Your task to perform on an android device: visit the assistant section in the google photos Image 0: 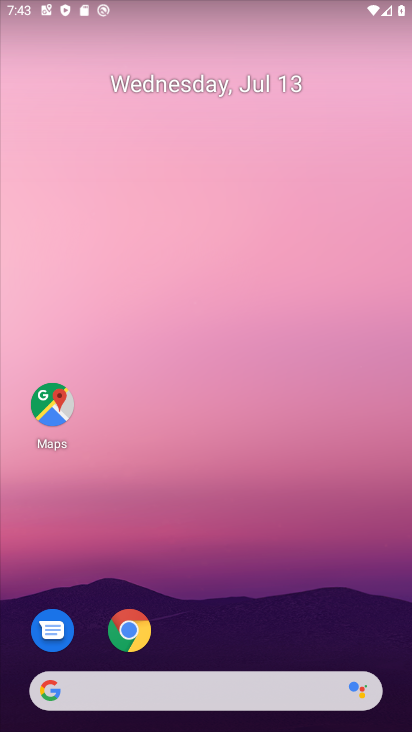
Step 0: drag from (359, 617) to (379, 104)
Your task to perform on an android device: visit the assistant section in the google photos Image 1: 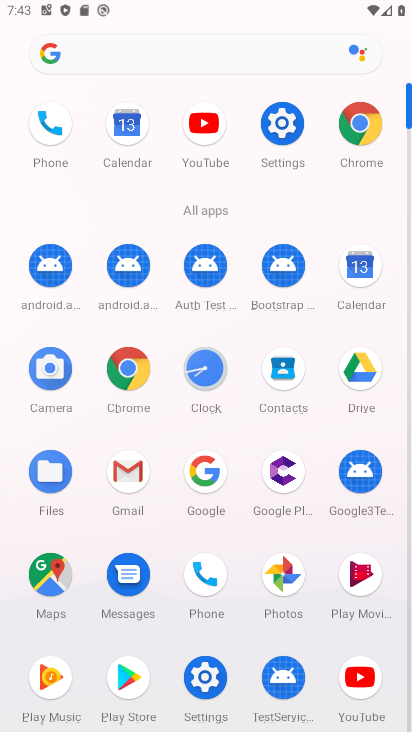
Step 1: click (282, 574)
Your task to perform on an android device: visit the assistant section in the google photos Image 2: 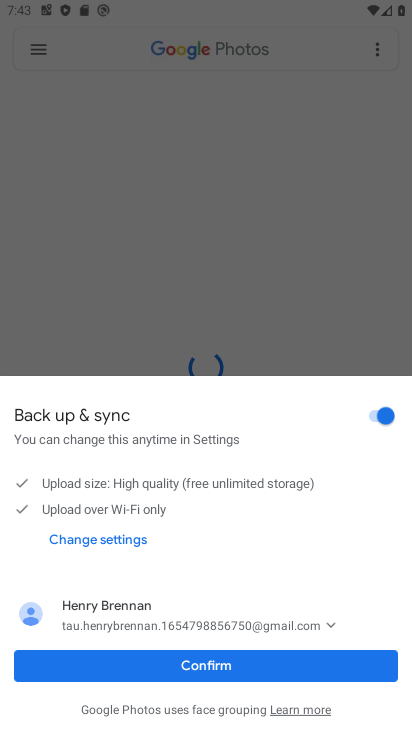
Step 2: click (216, 668)
Your task to perform on an android device: visit the assistant section in the google photos Image 3: 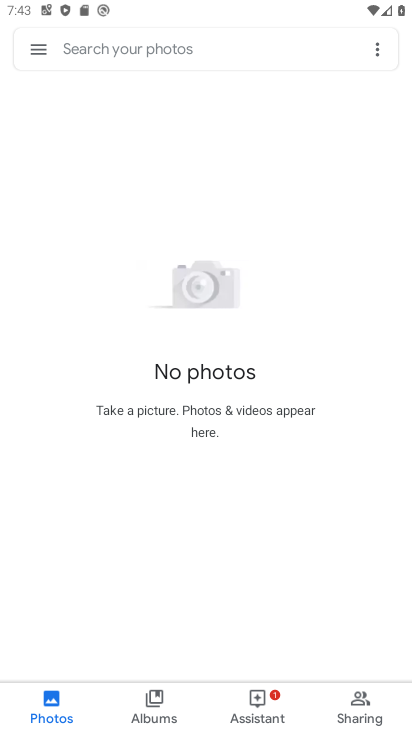
Step 3: click (253, 702)
Your task to perform on an android device: visit the assistant section in the google photos Image 4: 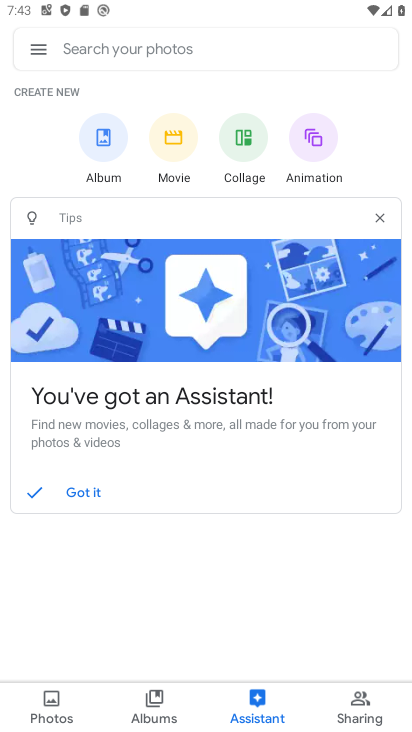
Step 4: task complete